Your task to perform on an android device: open chrome and create a bookmark for the current page Image 0: 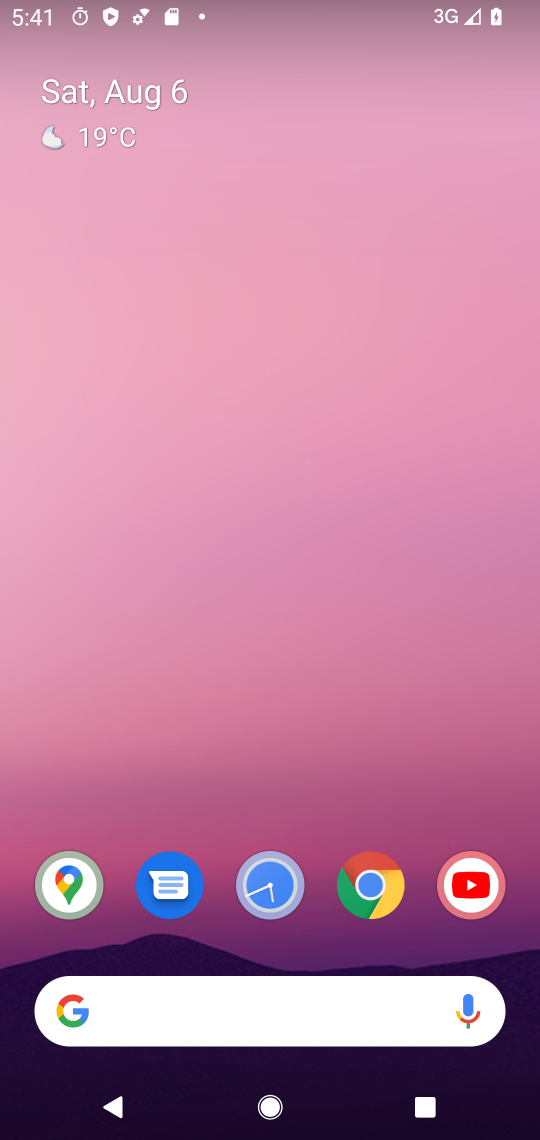
Step 0: drag from (421, 954) to (230, 54)
Your task to perform on an android device: open chrome and create a bookmark for the current page Image 1: 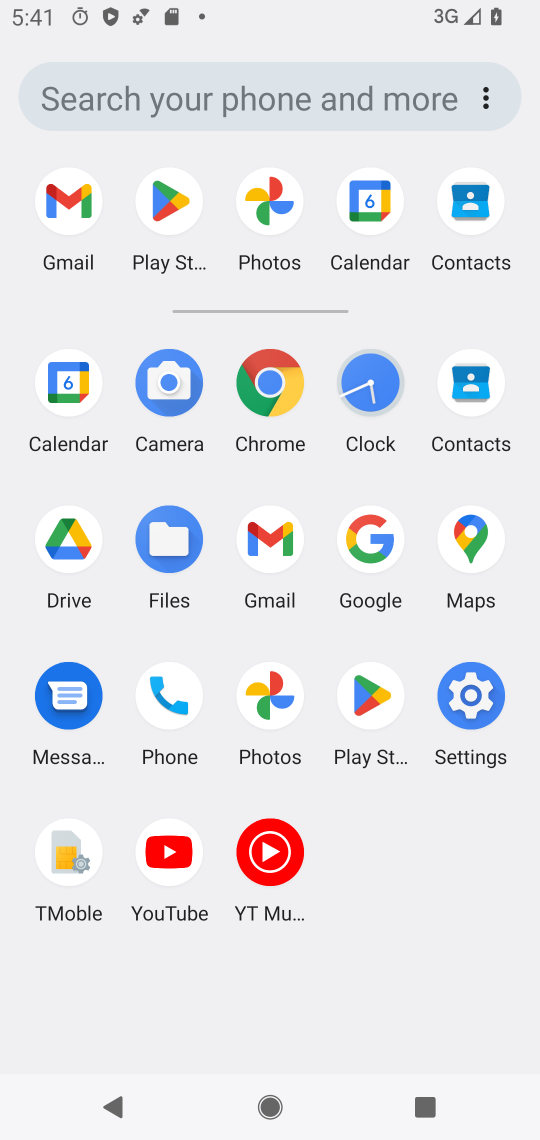
Step 1: press home button
Your task to perform on an android device: open chrome and create a bookmark for the current page Image 2: 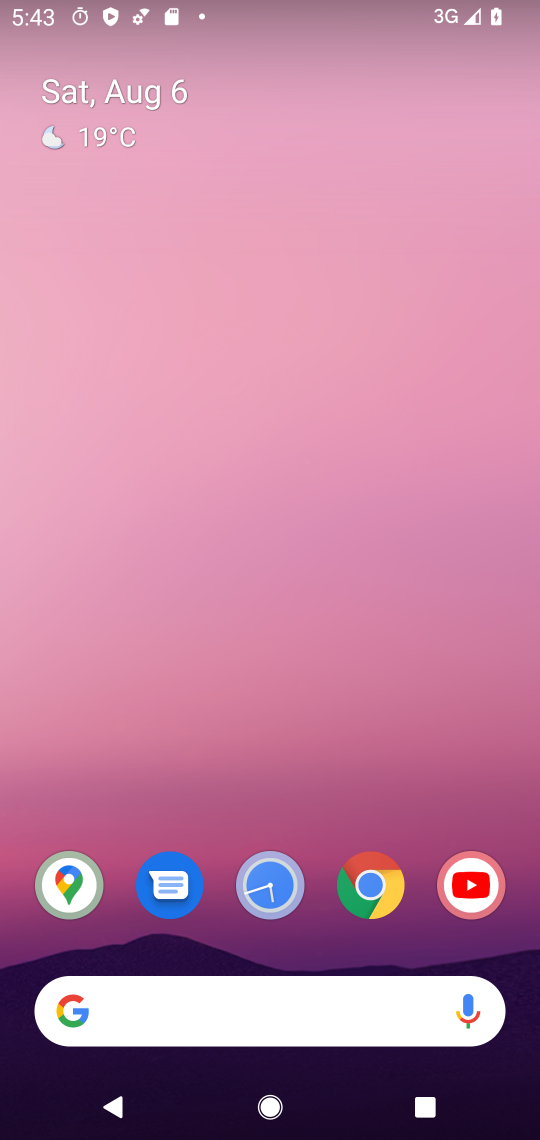
Step 2: drag from (453, 850) to (341, 44)
Your task to perform on an android device: open chrome and create a bookmark for the current page Image 3: 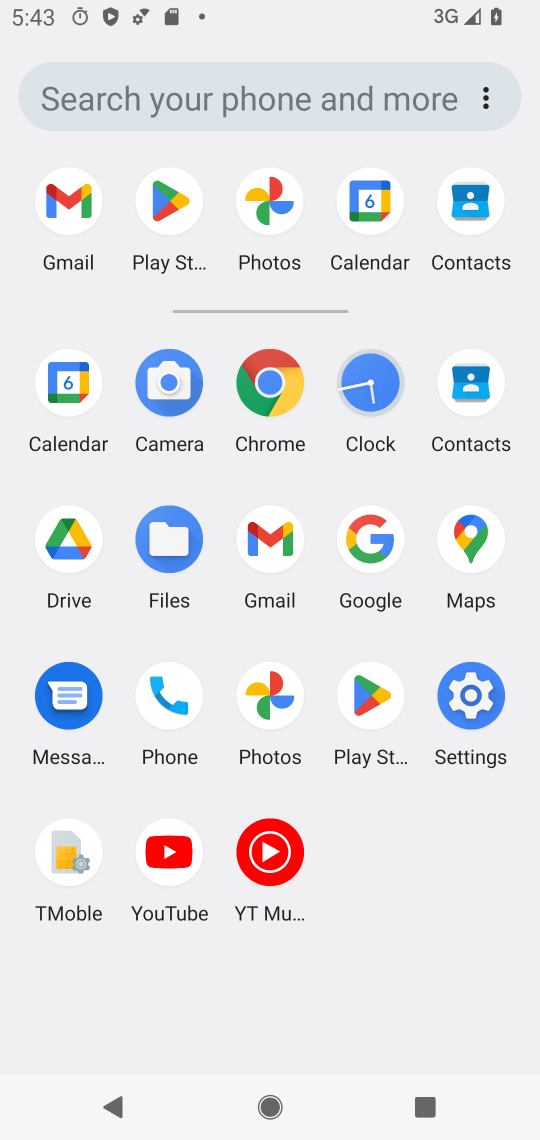
Step 3: click (276, 393)
Your task to perform on an android device: open chrome and create a bookmark for the current page Image 4: 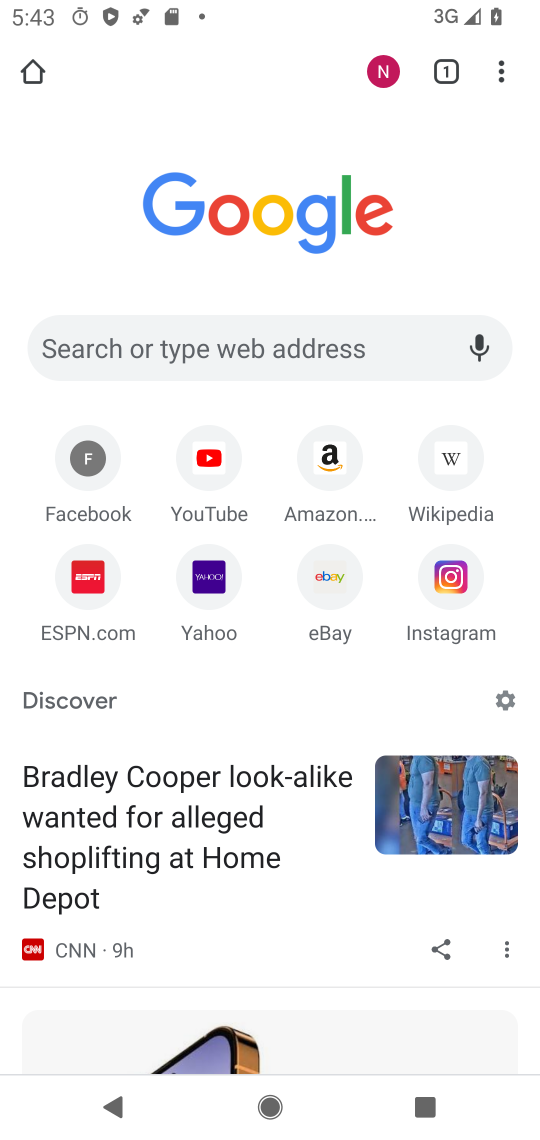
Step 4: click (512, 68)
Your task to perform on an android device: open chrome and create a bookmark for the current page Image 5: 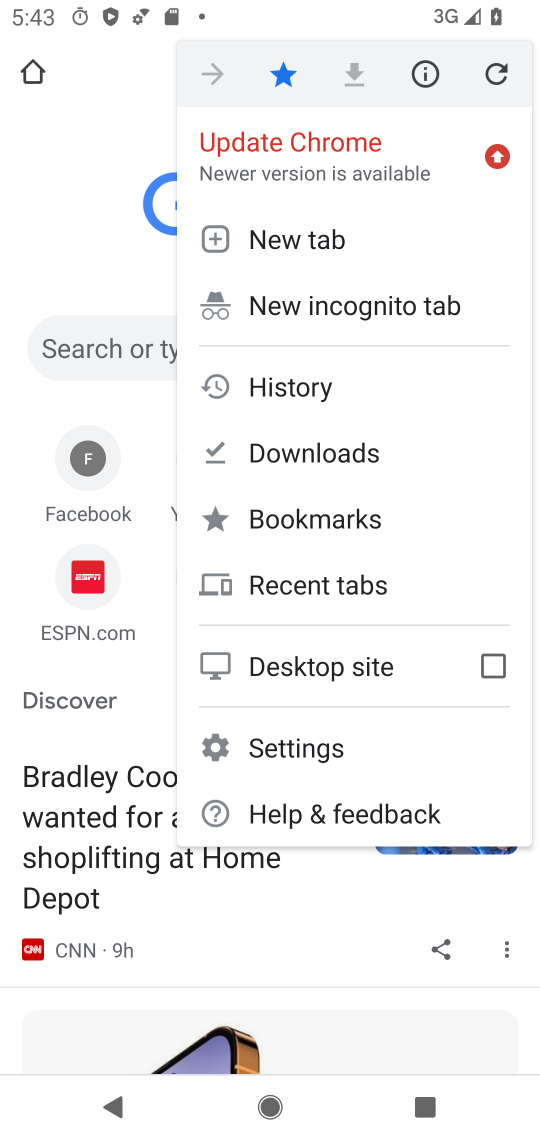
Step 5: click (325, 518)
Your task to perform on an android device: open chrome and create a bookmark for the current page Image 6: 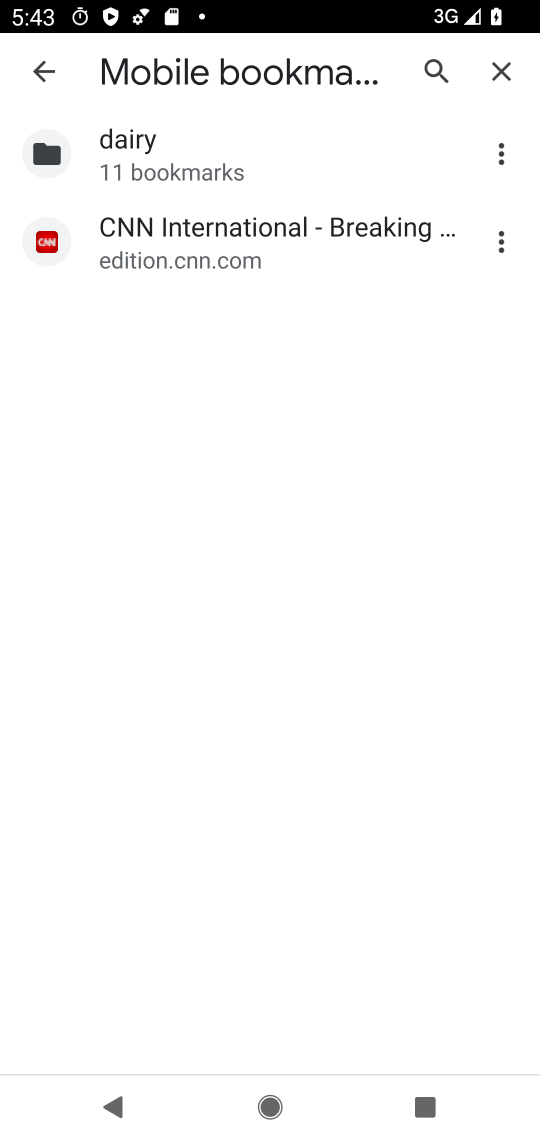
Step 6: task complete